Your task to perform on an android device: Do I have any events tomorrow? Image 0: 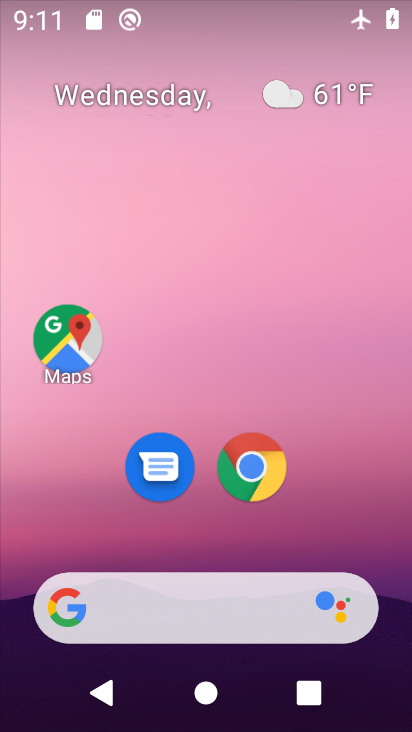
Step 0: drag from (362, 501) to (328, 40)
Your task to perform on an android device: Do I have any events tomorrow? Image 1: 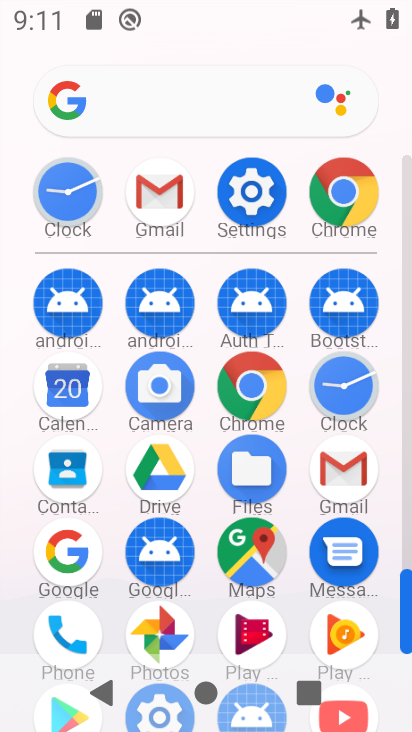
Step 1: click (85, 403)
Your task to perform on an android device: Do I have any events tomorrow? Image 2: 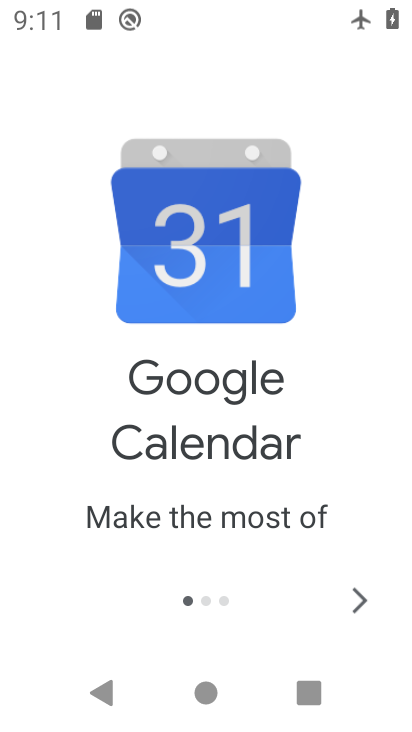
Step 2: click (359, 610)
Your task to perform on an android device: Do I have any events tomorrow? Image 3: 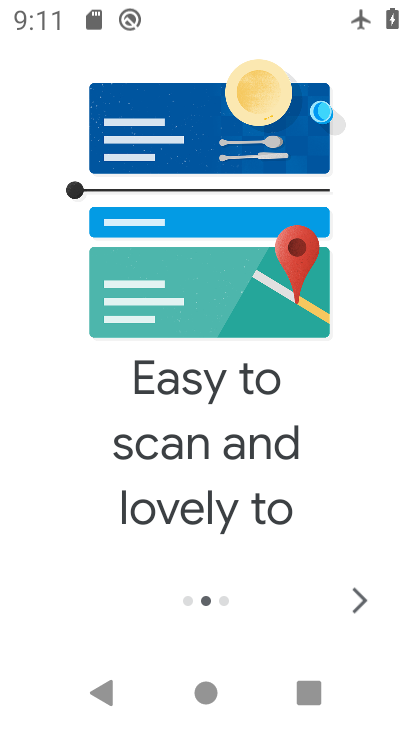
Step 3: click (358, 607)
Your task to perform on an android device: Do I have any events tomorrow? Image 4: 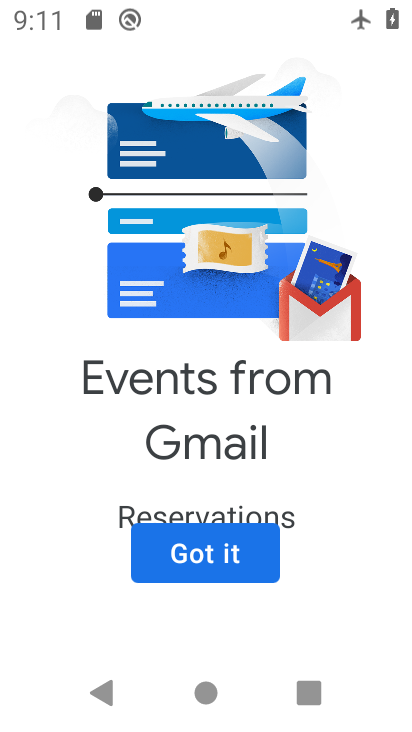
Step 4: click (200, 558)
Your task to perform on an android device: Do I have any events tomorrow? Image 5: 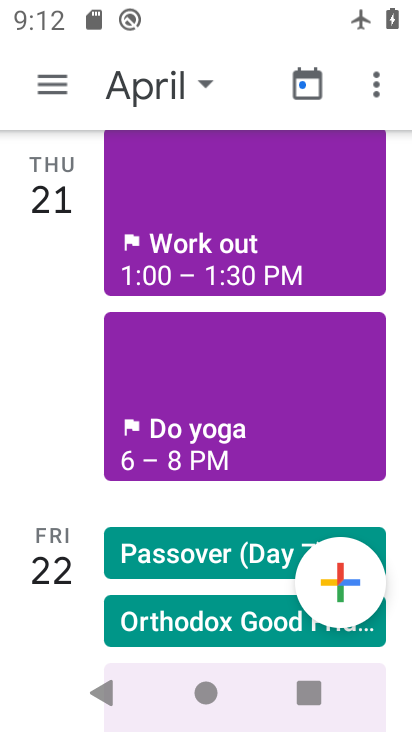
Step 5: click (135, 78)
Your task to perform on an android device: Do I have any events tomorrow? Image 6: 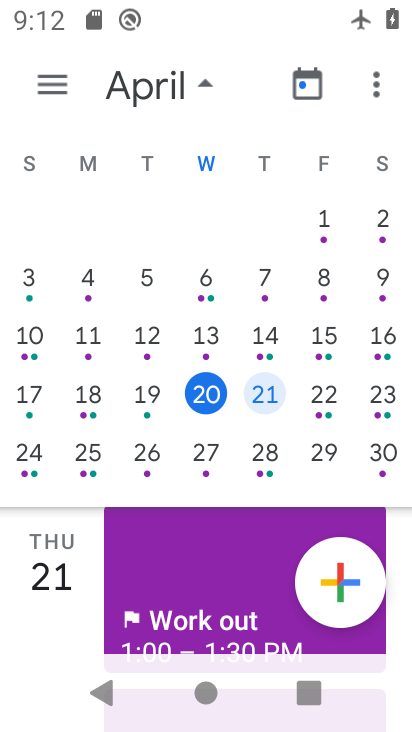
Step 6: click (271, 403)
Your task to perform on an android device: Do I have any events tomorrow? Image 7: 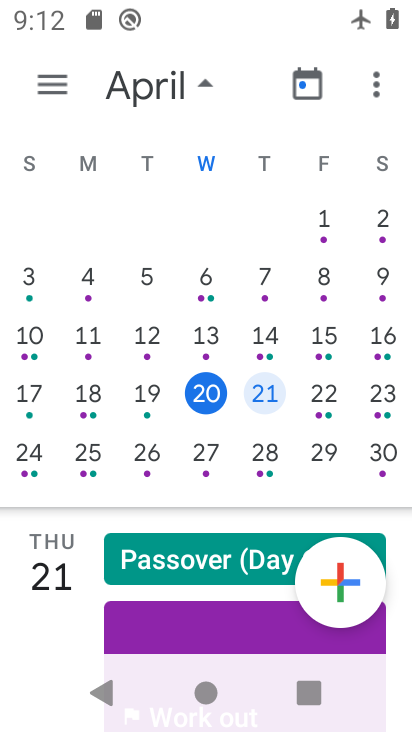
Step 7: task complete